Your task to perform on an android device: Open internet settings Image 0: 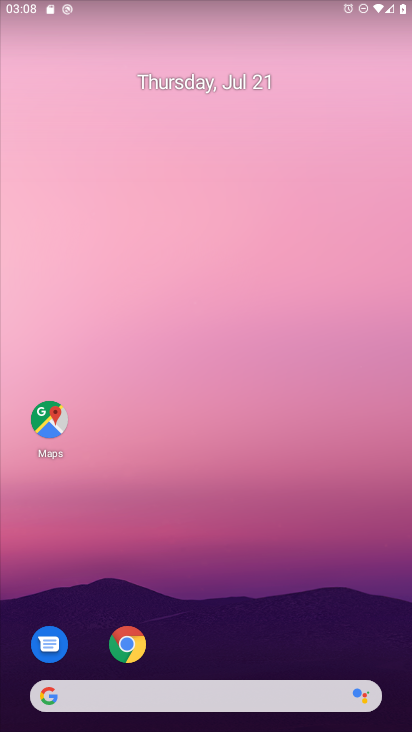
Step 0: drag from (229, 677) to (314, 127)
Your task to perform on an android device: Open internet settings Image 1: 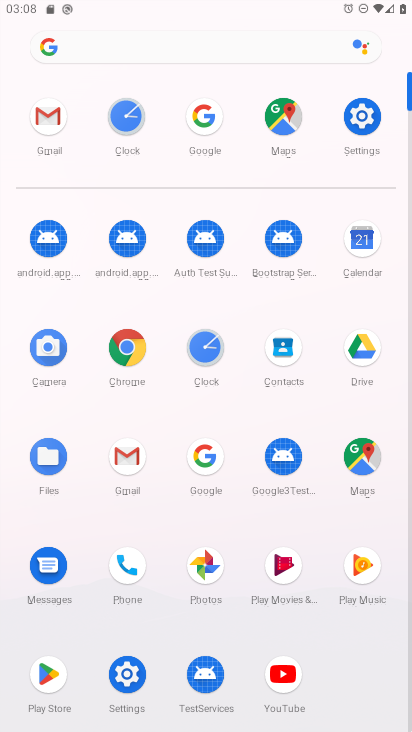
Step 1: click (362, 124)
Your task to perform on an android device: Open internet settings Image 2: 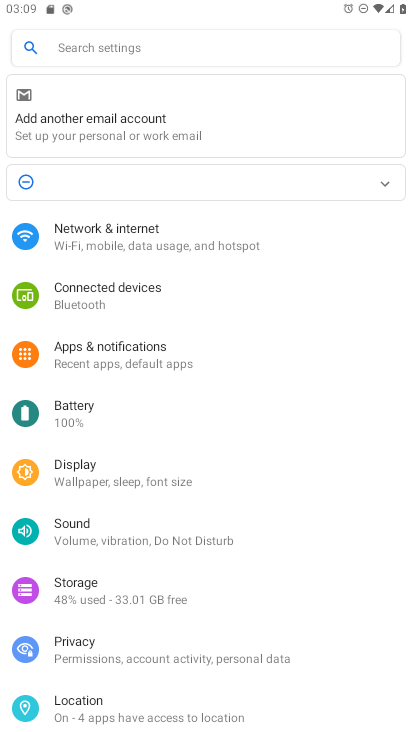
Step 2: click (181, 237)
Your task to perform on an android device: Open internet settings Image 3: 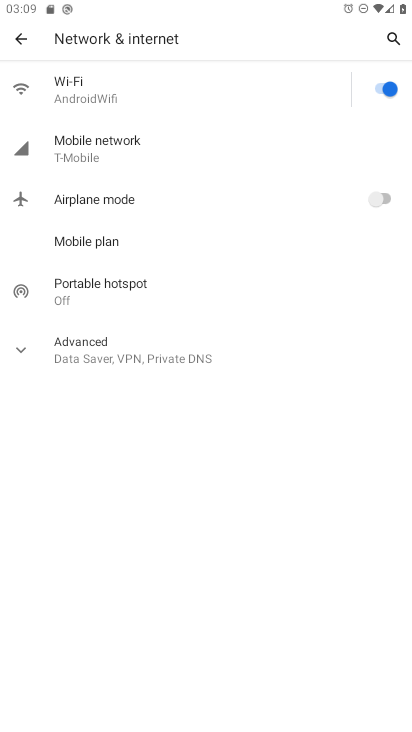
Step 3: click (77, 351)
Your task to perform on an android device: Open internet settings Image 4: 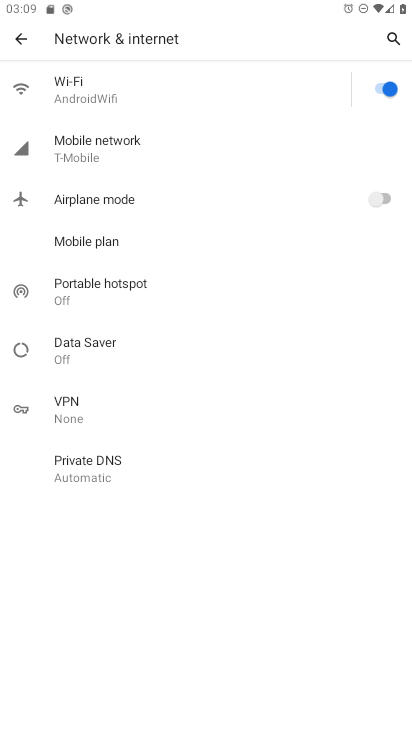
Step 4: task complete